Your task to perform on an android device: turn off priority inbox in the gmail app Image 0: 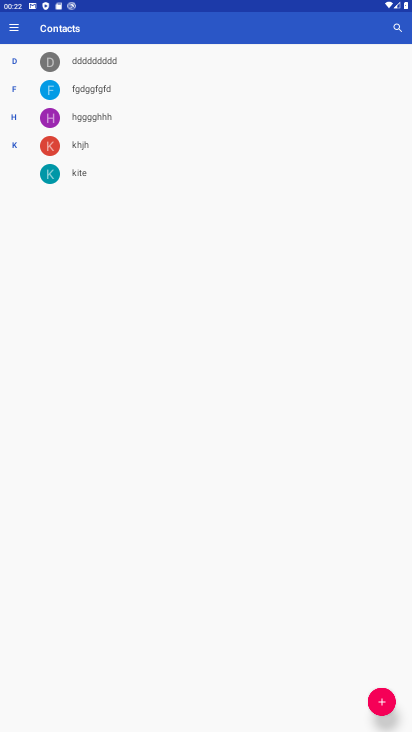
Step 0: press home button
Your task to perform on an android device: turn off priority inbox in the gmail app Image 1: 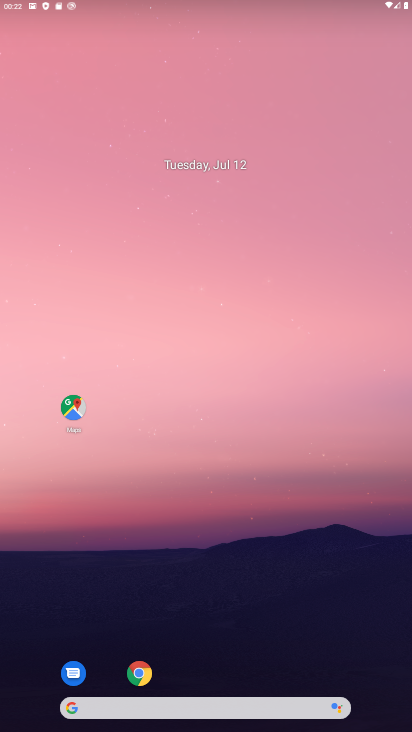
Step 1: drag from (244, 556) to (337, 1)
Your task to perform on an android device: turn off priority inbox in the gmail app Image 2: 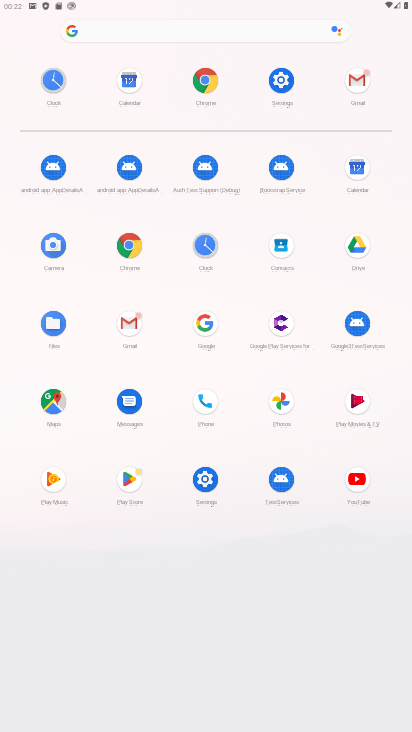
Step 2: click (353, 72)
Your task to perform on an android device: turn off priority inbox in the gmail app Image 3: 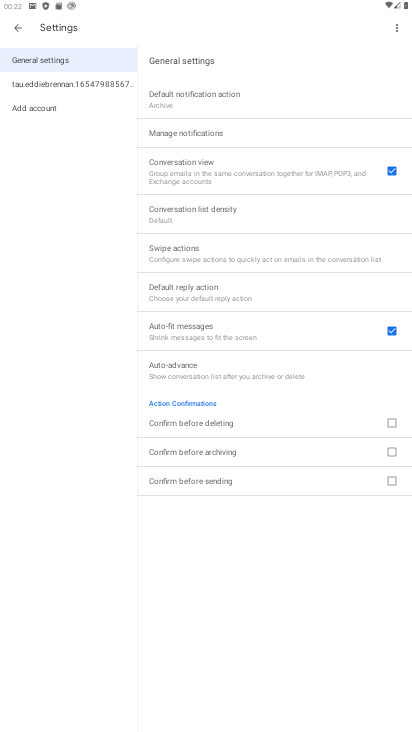
Step 3: click (13, 23)
Your task to perform on an android device: turn off priority inbox in the gmail app Image 4: 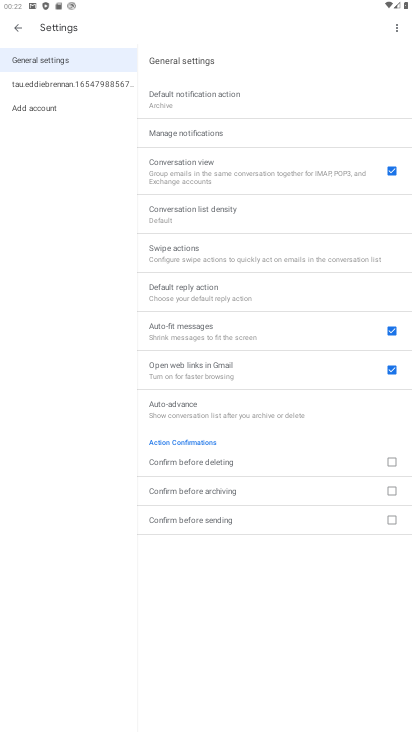
Step 4: click (38, 83)
Your task to perform on an android device: turn off priority inbox in the gmail app Image 5: 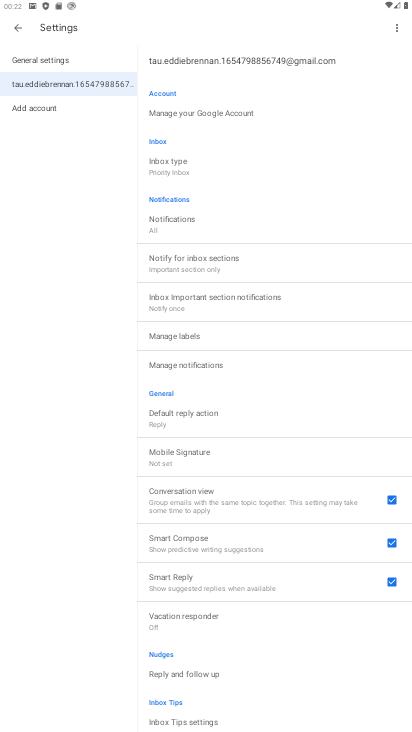
Step 5: click (166, 160)
Your task to perform on an android device: turn off priority inbox in the gmail app Image 6: 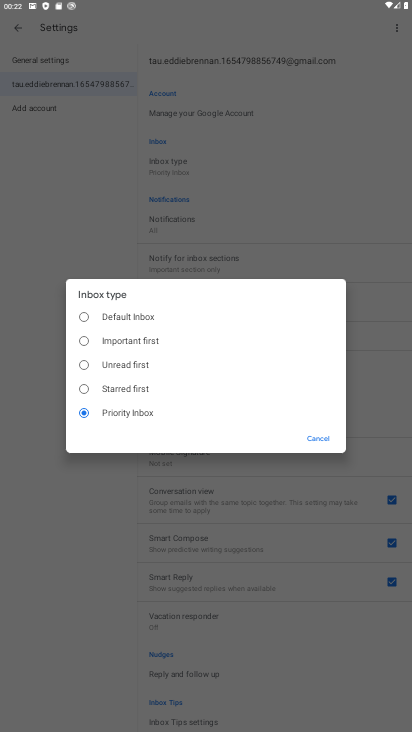
Step 6: click (86, 314)
Your task to perform on an android device: turn off priority inbox in the gmail app Image 7: 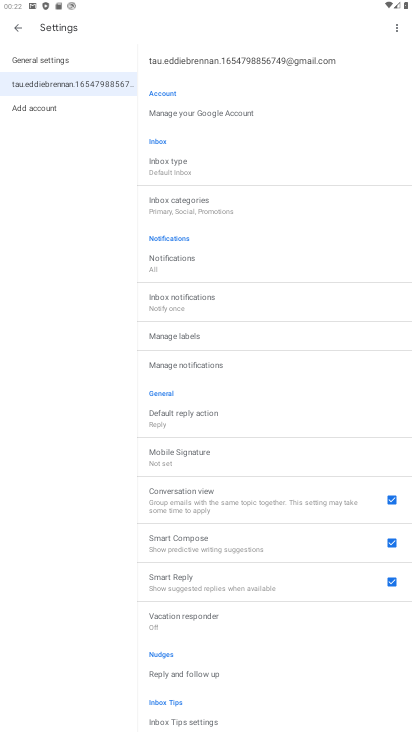
Step 7: task complete